Your task to perform on an android device: Go to sound settings Image 0: 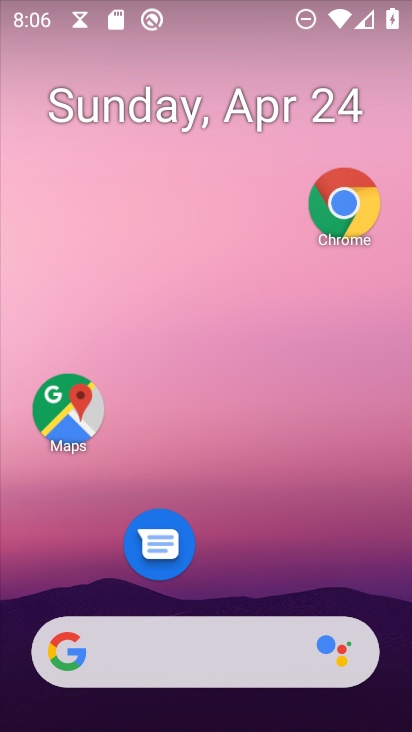
Step 0: drag from (222, 650) to (336, 57)
Your task to perform on an android device: Go to sound settings Image 1: 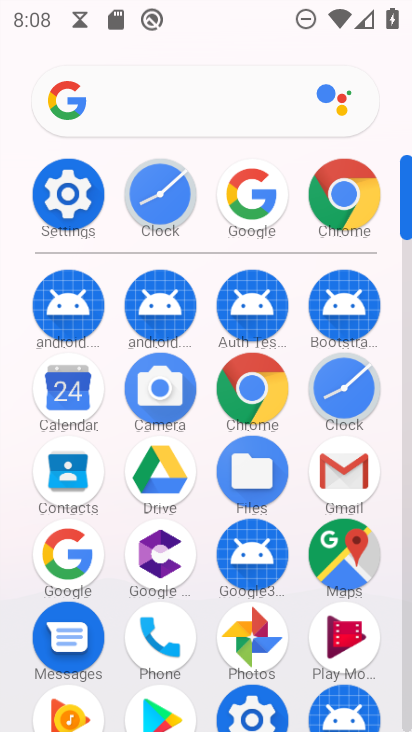
Step 1: click (73, 199)
Your task to perform on an android device: Go to sound settings Image 2: 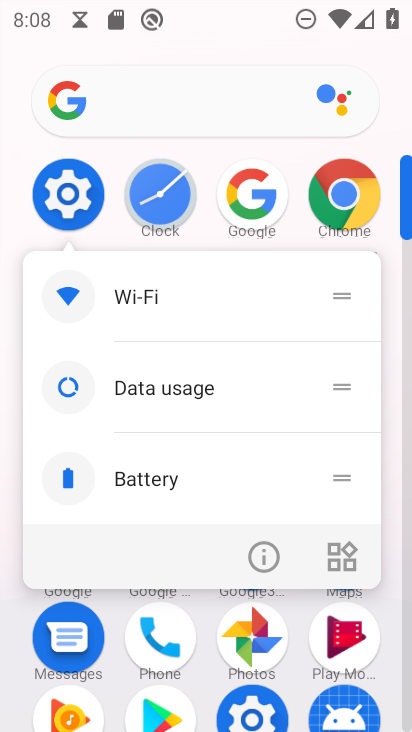
Step 2: click (74, 208)
Your task to perform on an android device: Go to sound settings Image 3: 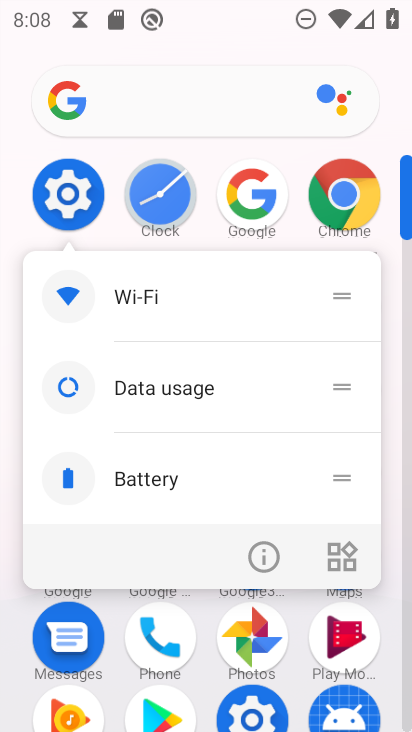
Step 3: click (70, 206)
Your task to perform on an android device: Go to sound settings Image 4: 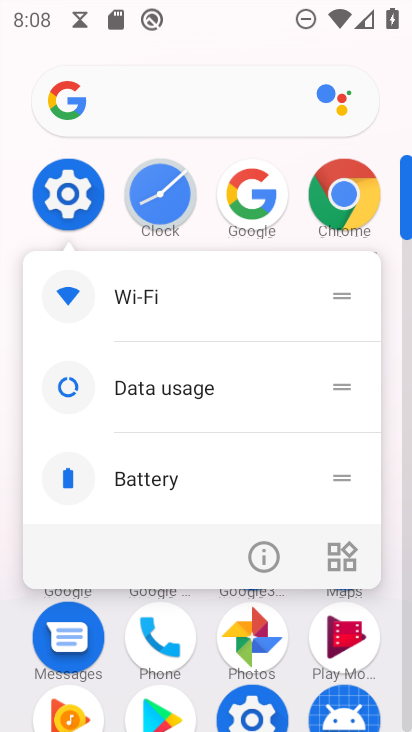
Step 4: click (70, 200)
Your task to perform on an android device: Go to sound settings Image 5: 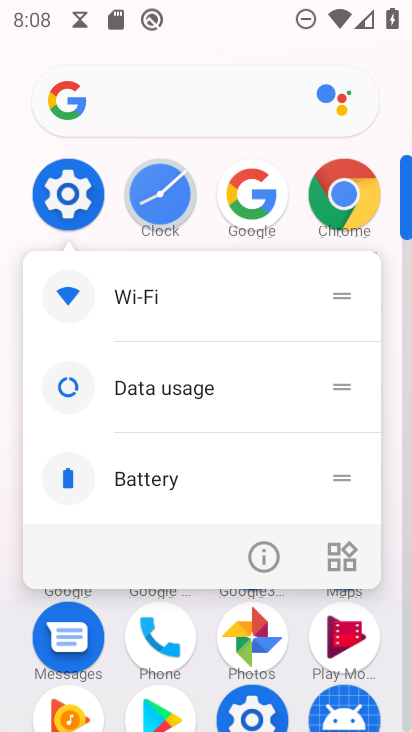
Step 5: click (71, 192)
Your task to perform on an android device: Go to sound settings Image 6: 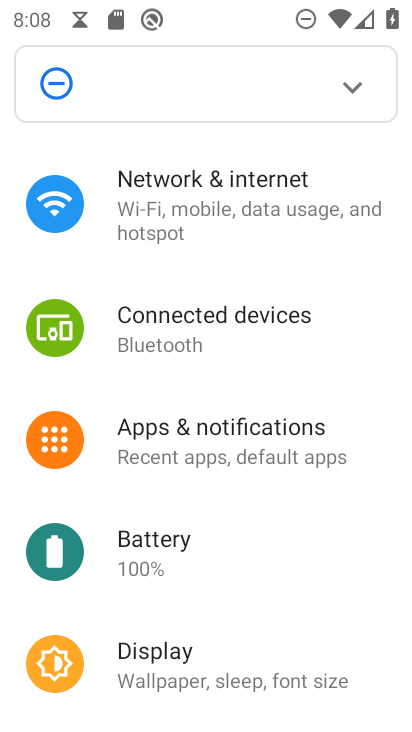
Step 6: drag from (196, 618) to (336, 245)
Your task to perform on an android device: Go to sound settings Image 7: 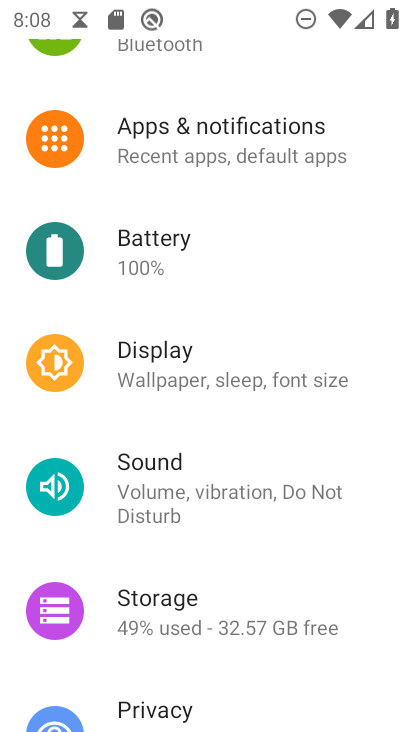
Step 7: click (143, 477)
Your task to perform on an android device: Go to sound settings Image 8: 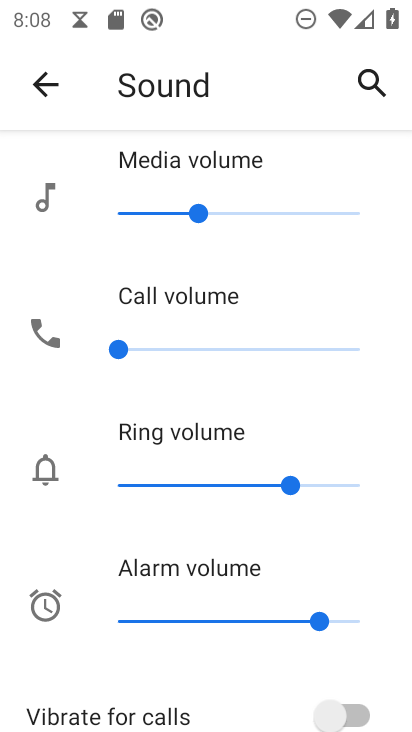
Step 8: task complete